Your task to perform on an android device: empty trash in google photos Image 0: 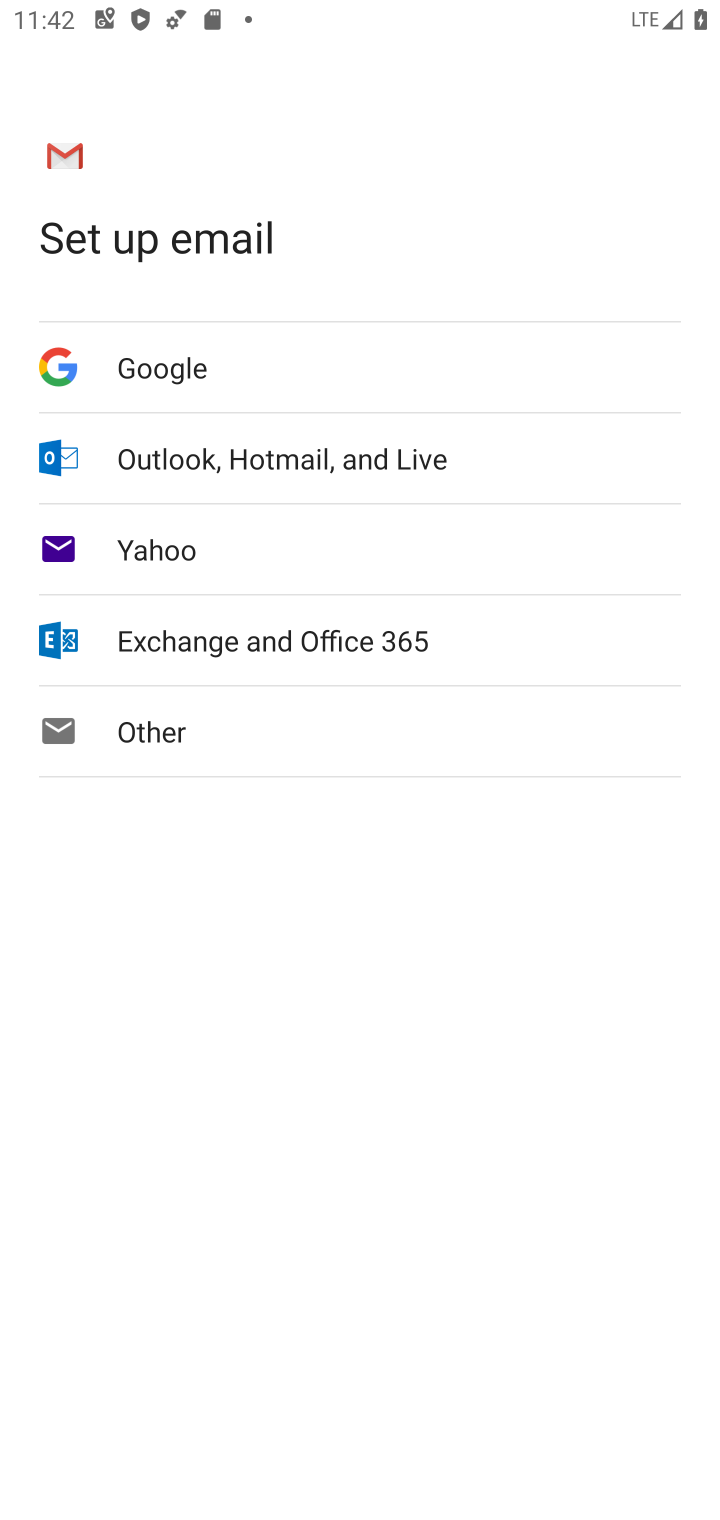
Step 0: press back button
Your task to perform on an android device: empty trash in google photos Image 1: 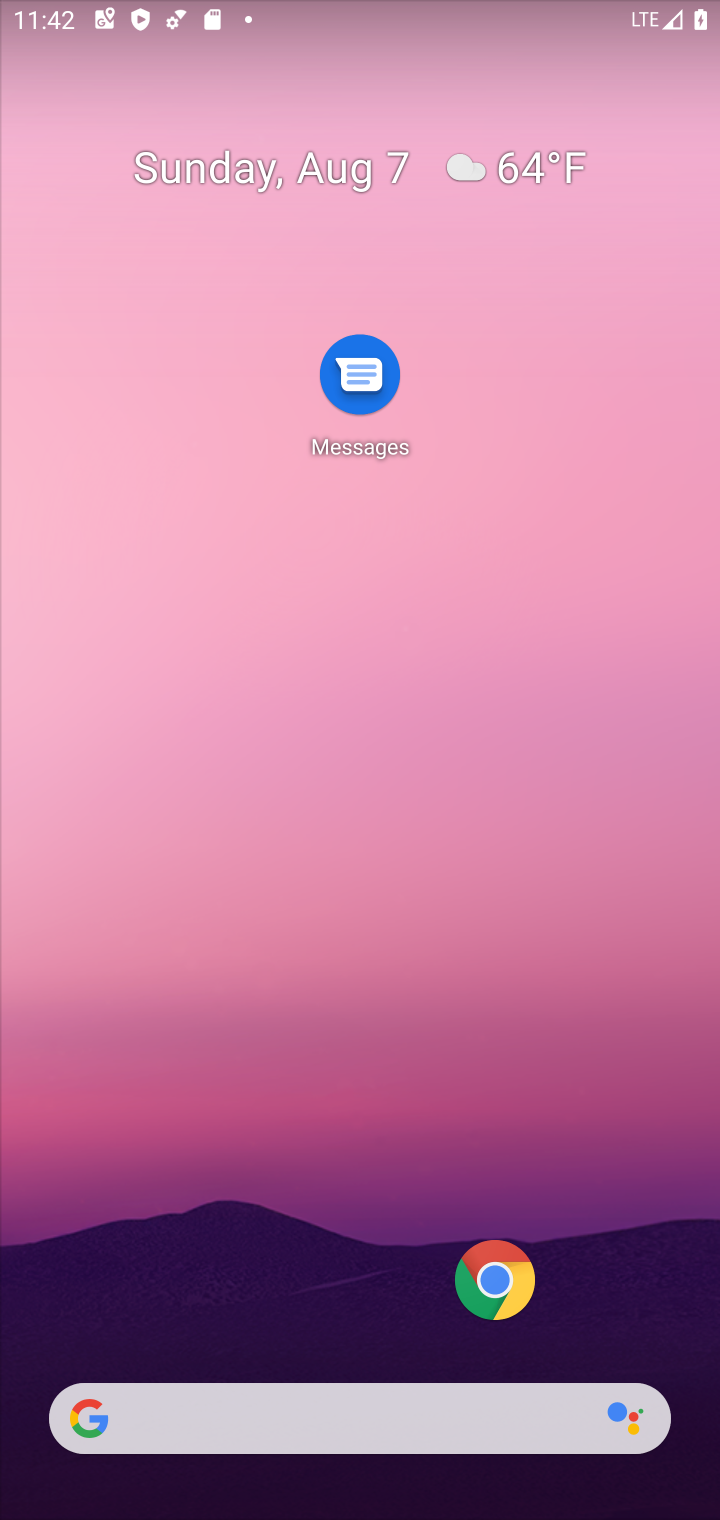
Step 1: drag from (398, 1143) to (491, 349)
Your task to perform on an android device: empty trash in google photos Image 2: 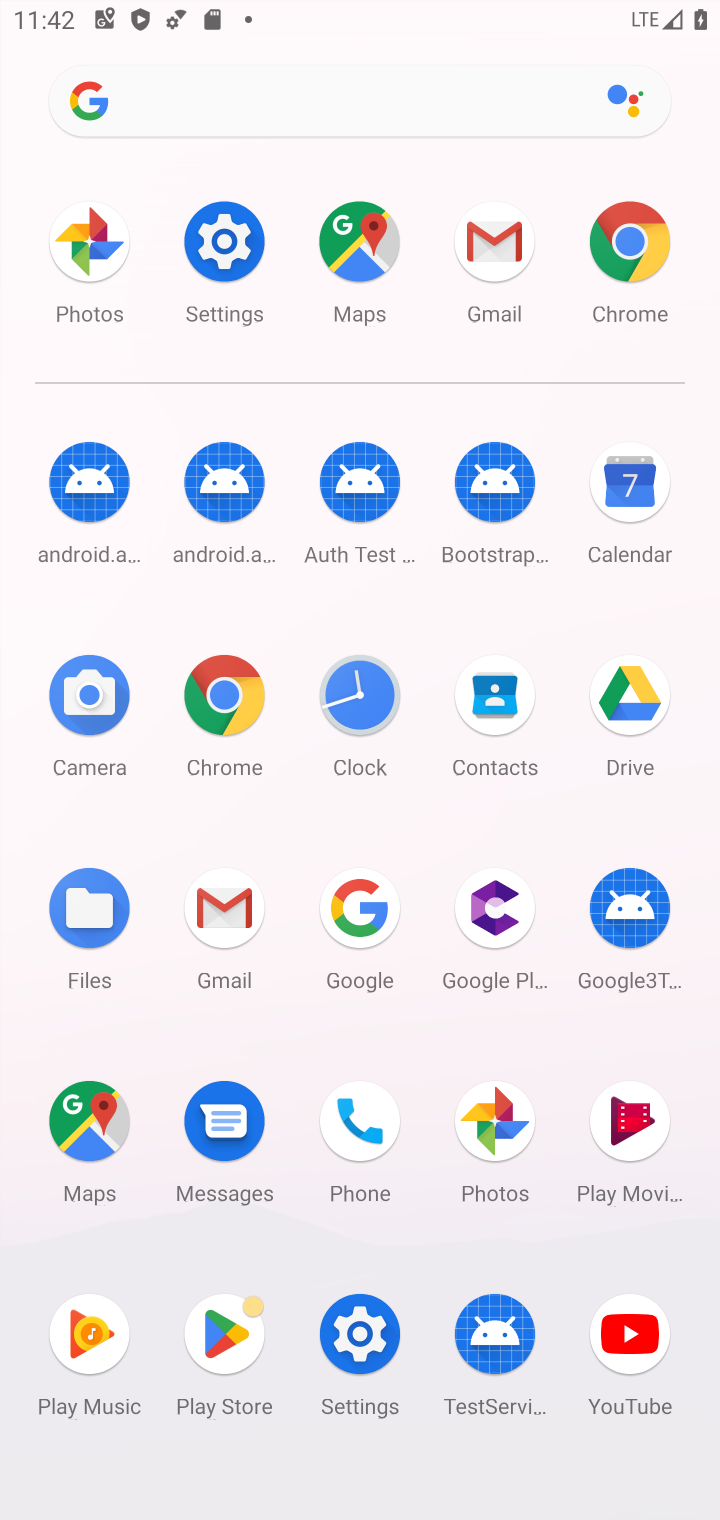
Step 2: click (509, 1121)
Your task to perform on an android device: empty trash in google photos Image 3: 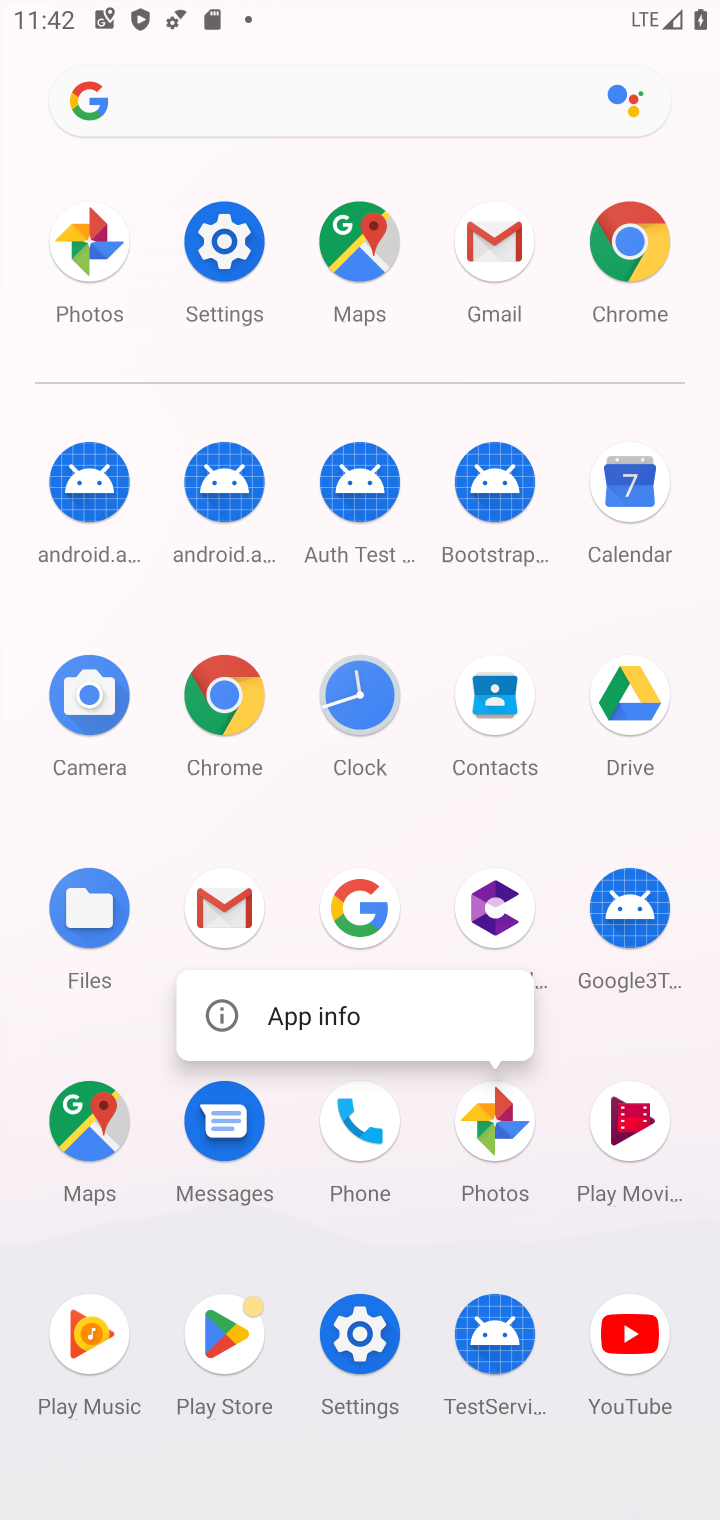
Step 3: click (500, 1129)
Your task to perform on an android device: empty trash in google photos Image 4: 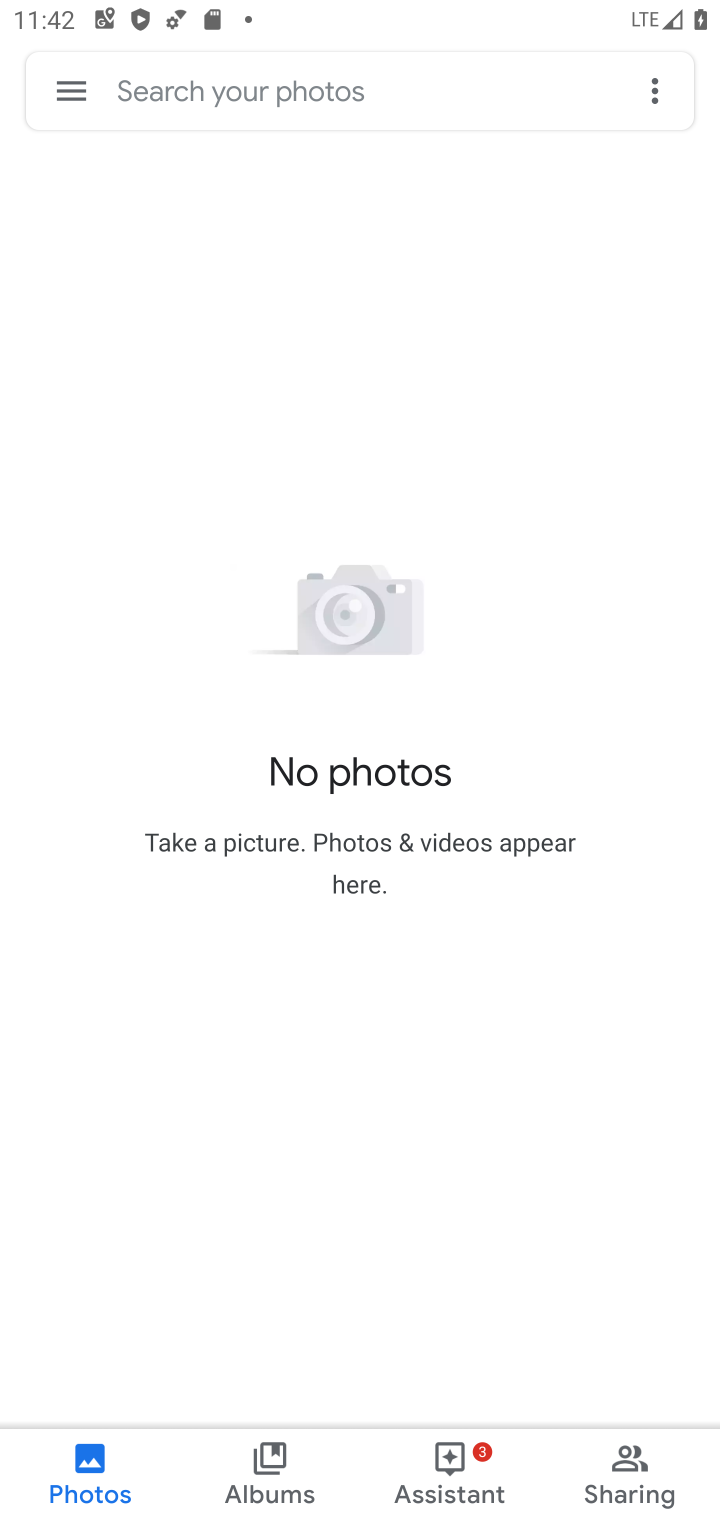
Step 4: click (67, 89)
Your task to perform on an android device: empty trash in google photos Image 5: 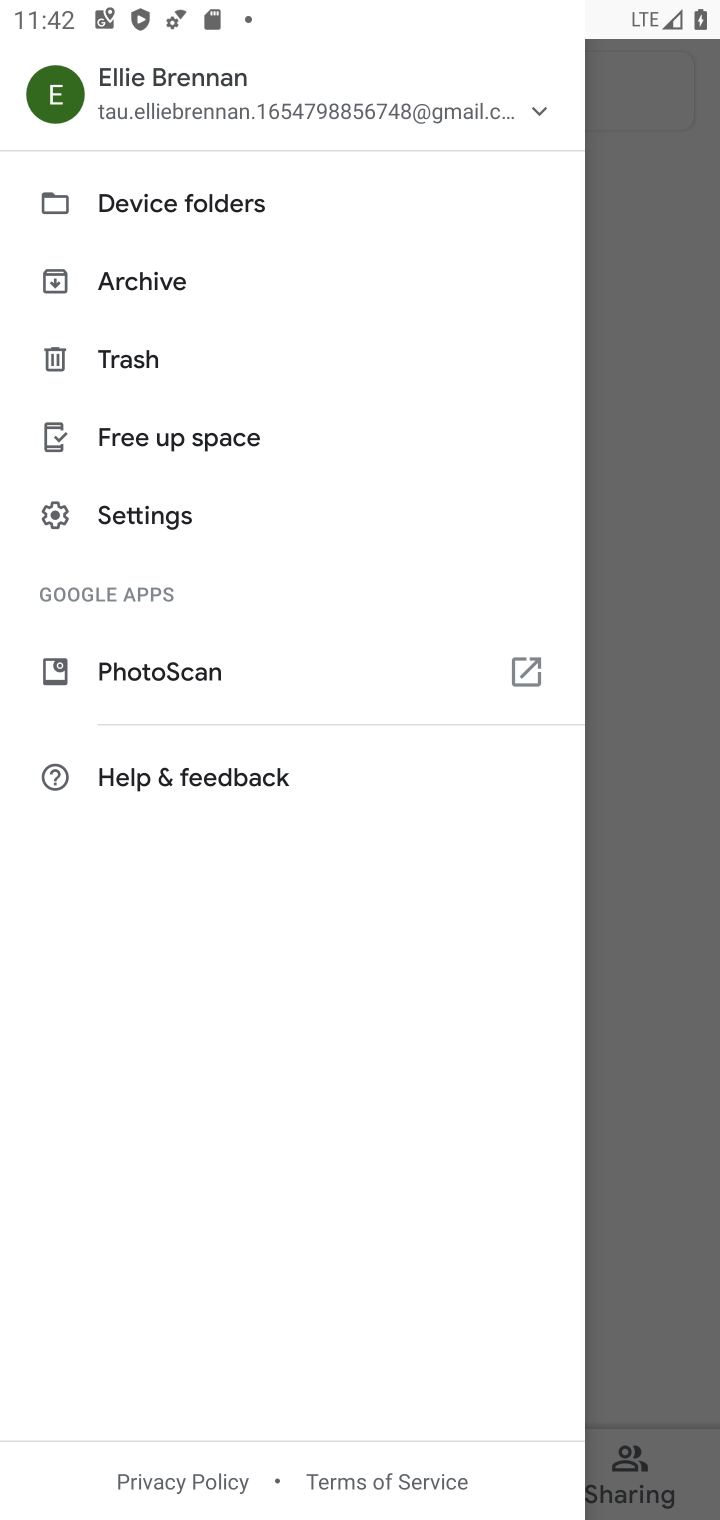
Step 5: click (176, 366)
Your task to perform on an android device: empty trash in google photos Image 6: 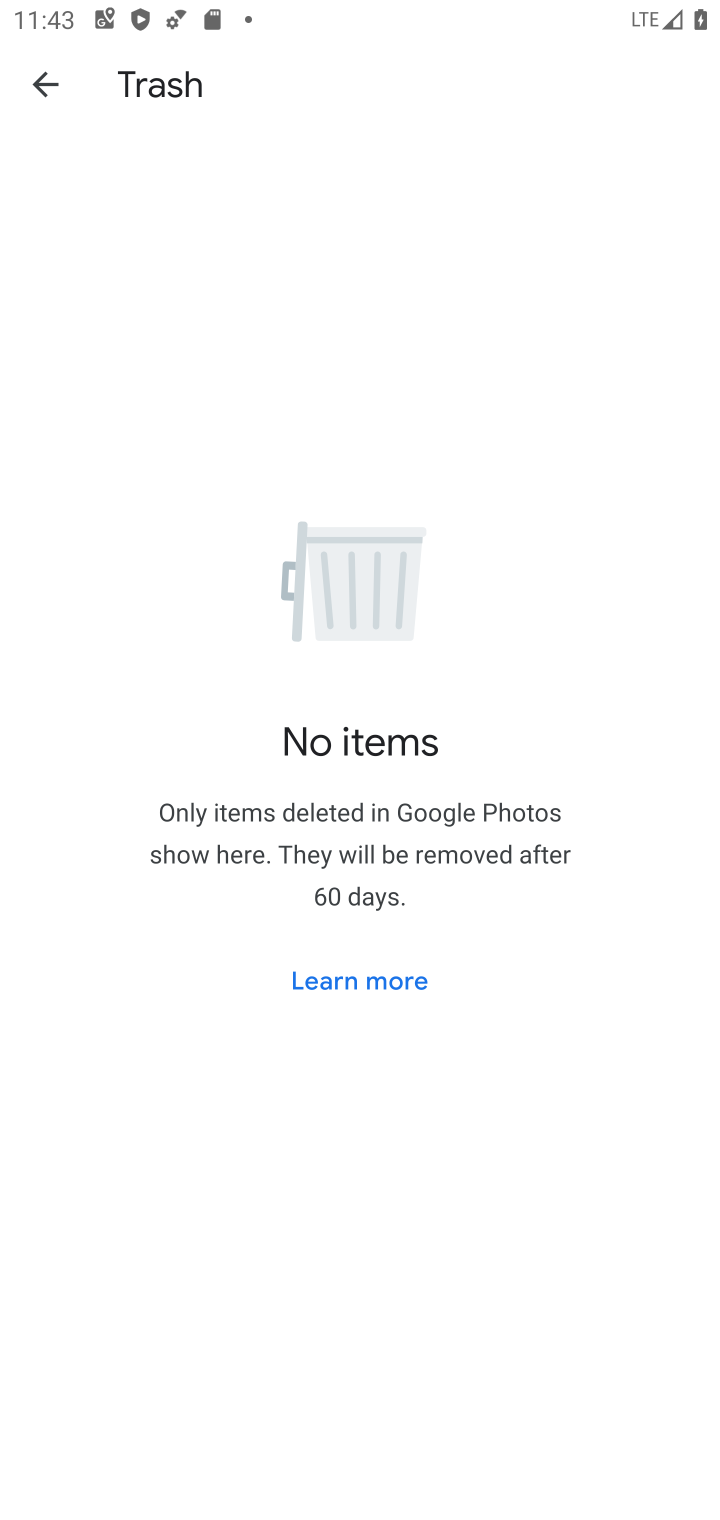
Step 6: task complete